Your task to perform on an android device: turn on translation in the chrome app Image 0: 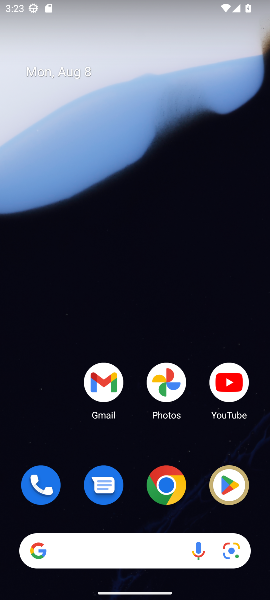
Step 0: drag from (81, 576) to (81, 157)
Your task to perform on an android device: turn on translation in the chrome app Image 1: 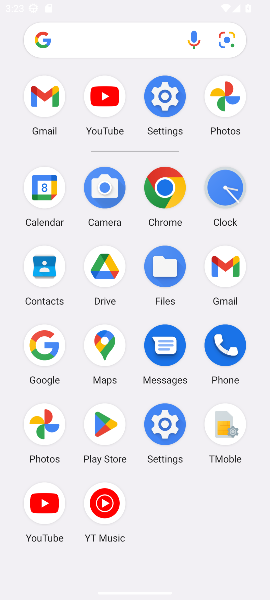
Step 1: drag from (190, 522) to (190, 230)
Your task to perform on an android device: turn on translation in the chrome app Image 2: 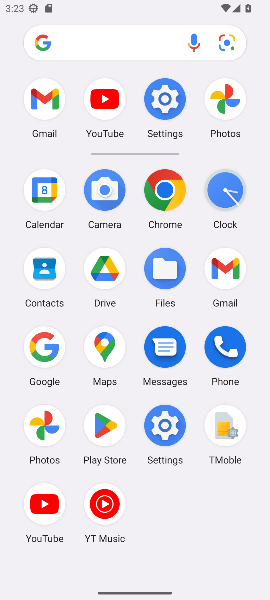
Step 2: click (163, 177)
Your task to perform on an android device: turn on translation in the chrome app Image 3: 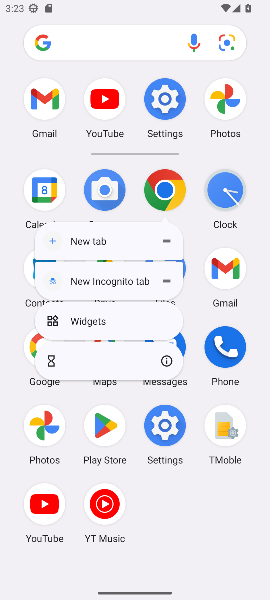
Step 3: click (159, 184)
Your task to perform on an android device: turn on translation in the chrome app Image 4: 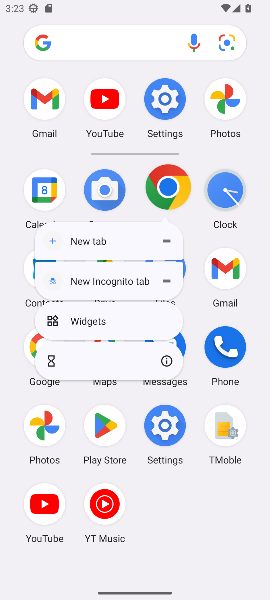
Step 4: click (162, 181)
Your task to perform on an android device: turn on translation in the chrome app Image 5: 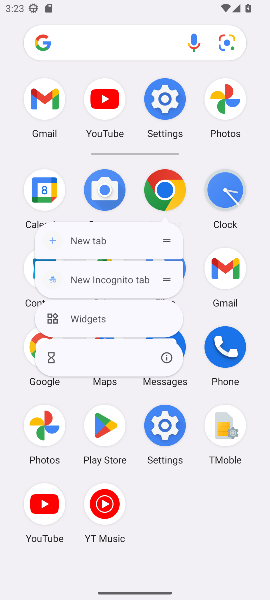
Step 5: click (162, 181)
Your task to perform on an android device: turn on translation in the chrome app Image 6: 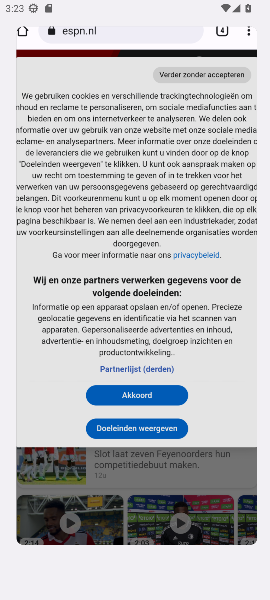
Step 6: click (162, 181)
Your task to perform on an android device: turn on translation in the chrome app Image 7: 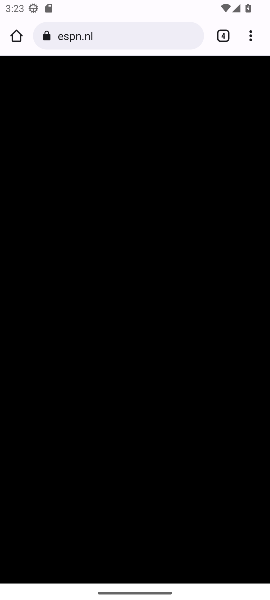
Step 7: click (171, 169)
Your task to perform on an android device: turn on translation in the chrome app Image 8: 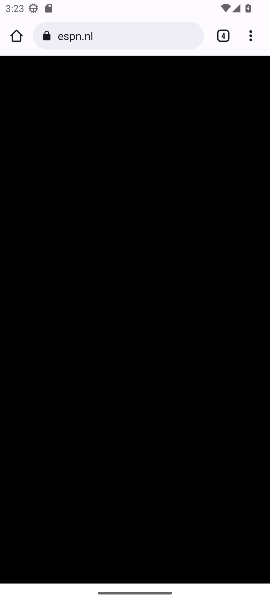
Step 8: click (254, 45)
Your task to perform on an android device: turn on translation in the chrome app Image 9: 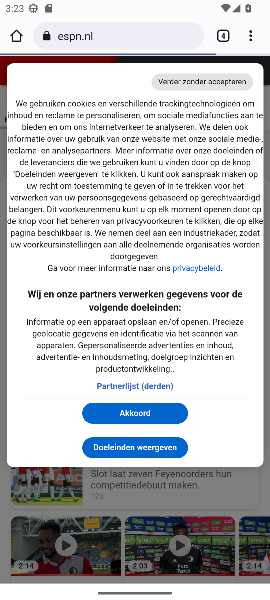
Step 9: drag from (246, 35) to (154, 458)
Your task to perform on an android device: turn on translation in the chrome app Image 10: 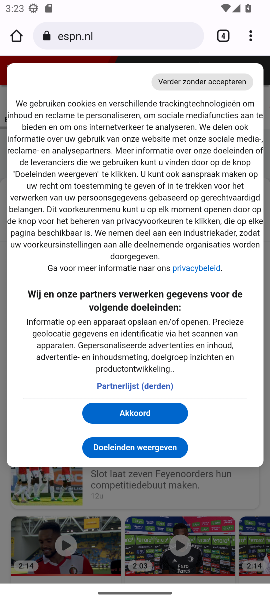
Step 10: click (149, 454)
Your task to perform on an android device: turn on translation in the chrome app Image 11: 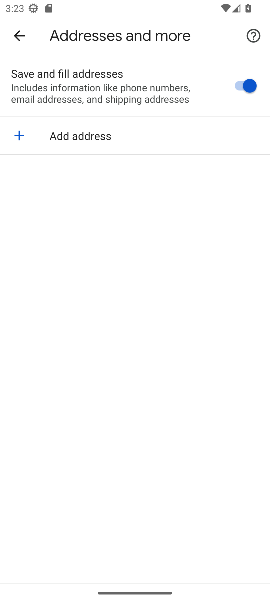
Step 11: click (19, 29)
Your task to perform on an android device: turn on translation in the chrome app Image 12: 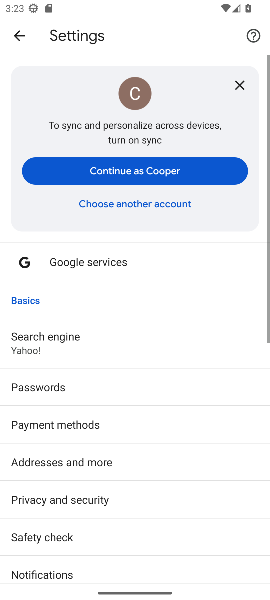
Step 12: drag from (61, 517) to (69, 151)
Your task to perform on an android device: turn on translation in the chrome app Image 13: 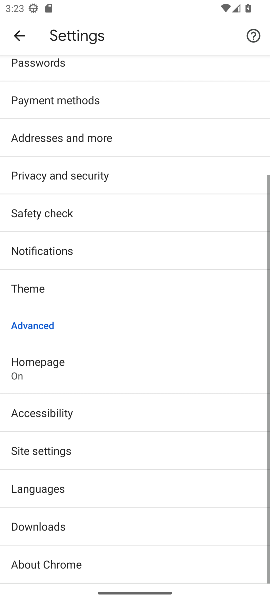
Step 13: drag from (112, 413) to (94, 138)
Your task to perform on an android device: turn on translation in the chrome app Image 14: 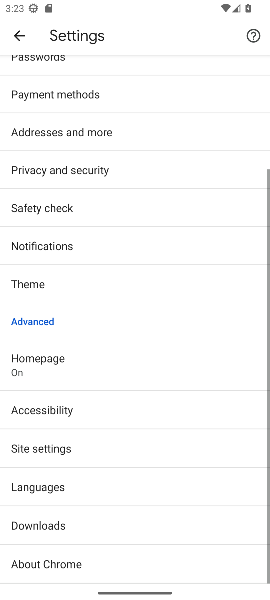
Step 14: drag from (117, 379) to (106, 139)
Your task to perform on an android device: turn on translation in the chrome app Image 15: 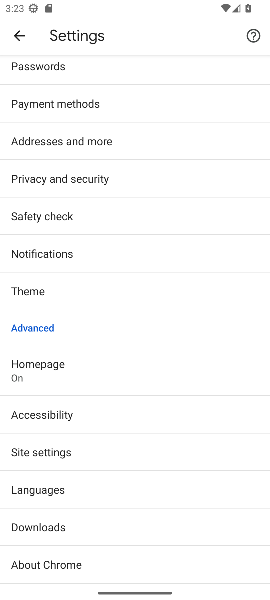
Step 15: click (49, 482)
Your task to perform on an android device: turn on translation in the chrome app Image 16: 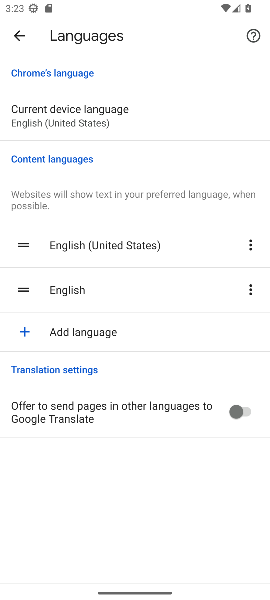
Step 16: click (237, 412)
Your task to perform on an android device: turn on translation in the chrome app Image 17: 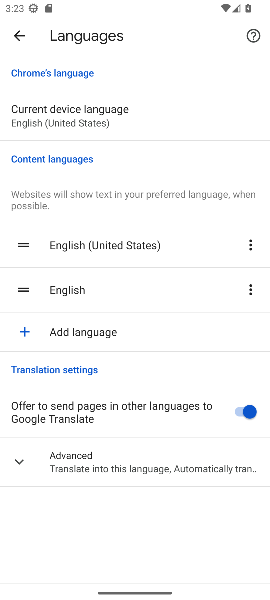
Step 17: task complete